Your task to perform on an android device: Open location settings Image 0: 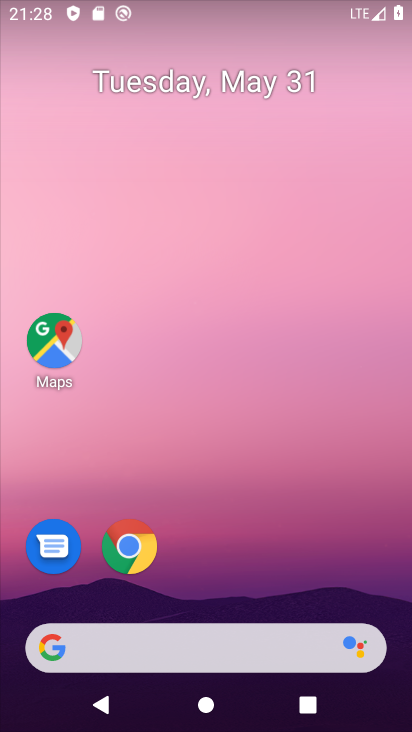
Step 0: drag from (394, 691) to (318, 79)
Your task to perform on an android device: Open location settings Image 1: 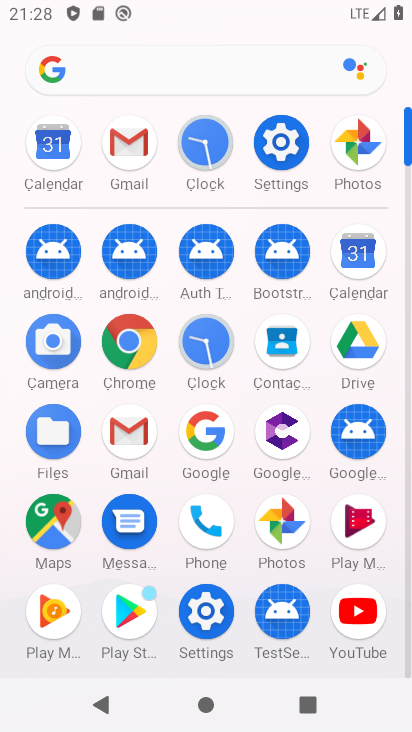
Step 1: click (271, 142)
Your task to perform on an android device: Open location settings Image 2: 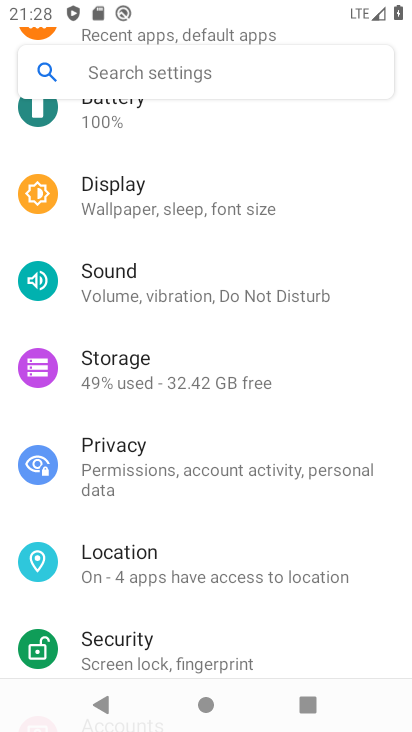
Step 2: click (123, 560)
Your task to perform on an android device: Open location settings Image 3: 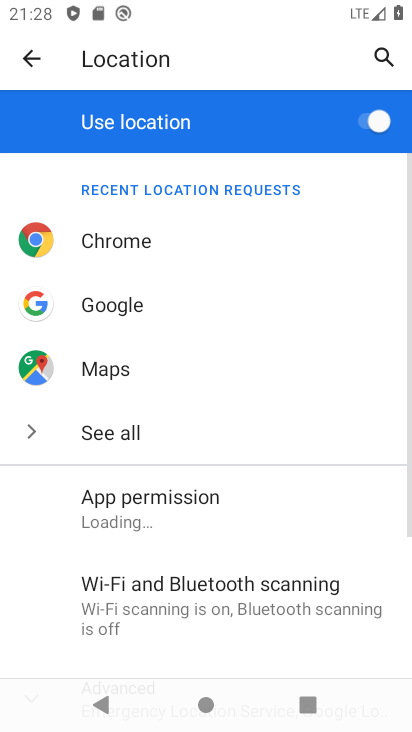
Step 3: drag from (262, 609) to (250, 252)
Your task to perform on an android device: Open location settings Image 4: 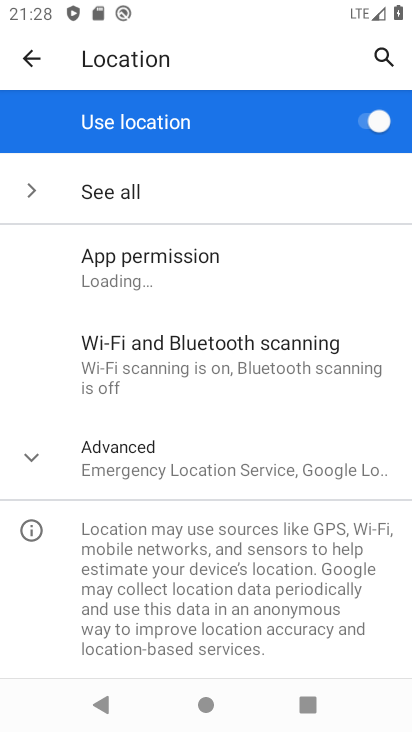
Step 4: click (27, 448)
Your task to perform on an android device: Open location settings Image 5: 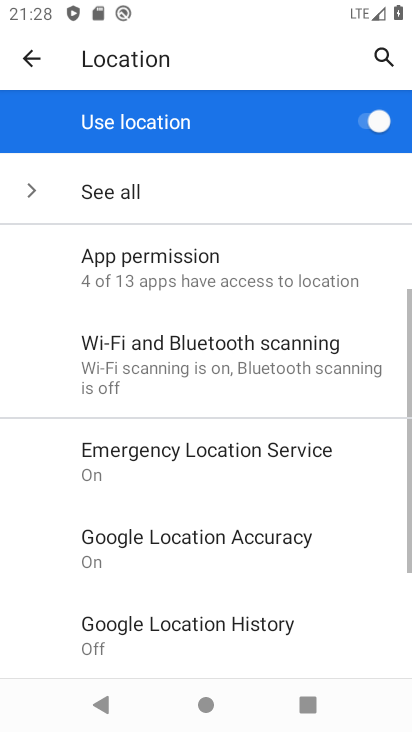
Step 5: task complete